Your task to perform on an android device: What's on my calendar today? Image 0: 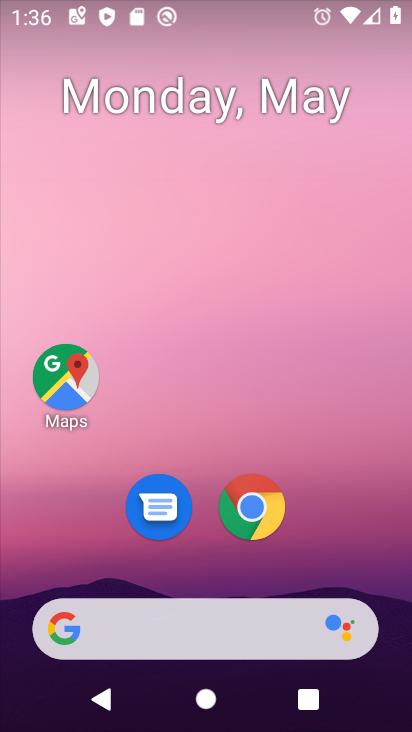
Step 0: drag from (237, 724) to (234, 26)
Your task to perform on an android device: What's on my calendar today? Image 1: 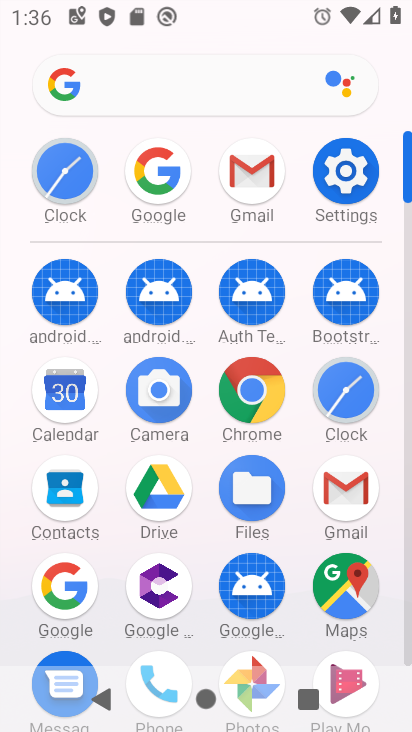
Step 1: click (68, 395)
Your task to perform on an android device: What's on my calendar today? Image 2: 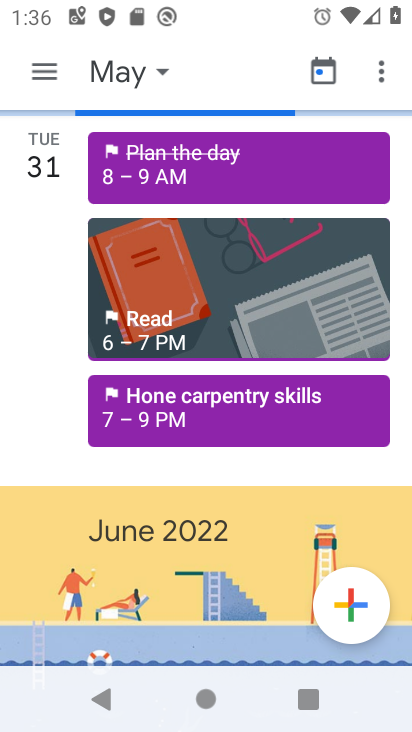
Step 2: click (136, 74)
Your task to perform on an android device: What's on my calendar today? Image 3: 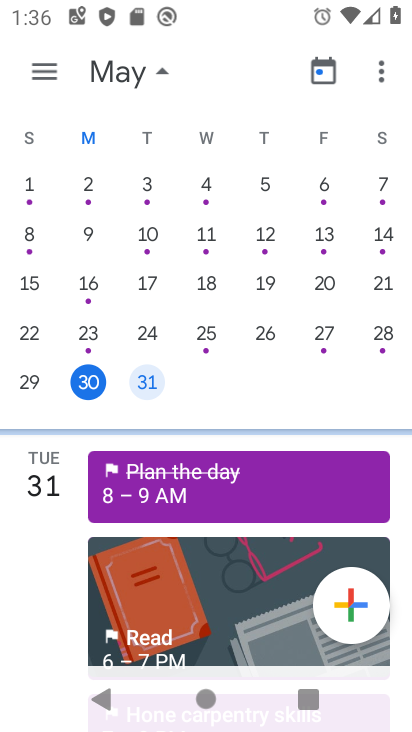
Step 3: click (91, 379)
Your task to perform on an android device: What's on my calendar today? Image 4: 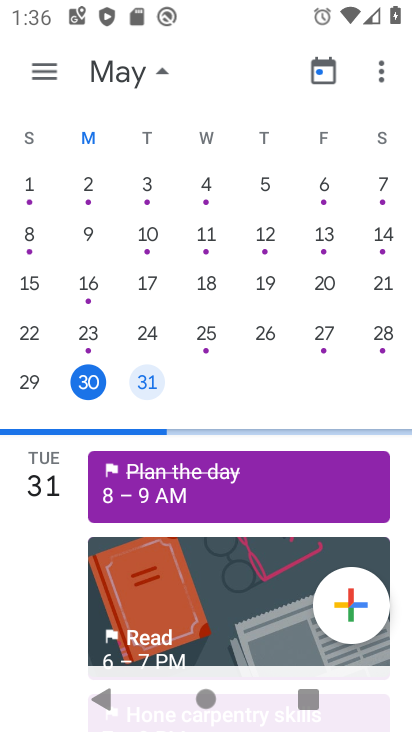
Step 4: click (84, 367)
Your task to perform on an android device: What's on my calendar today? Image 5: 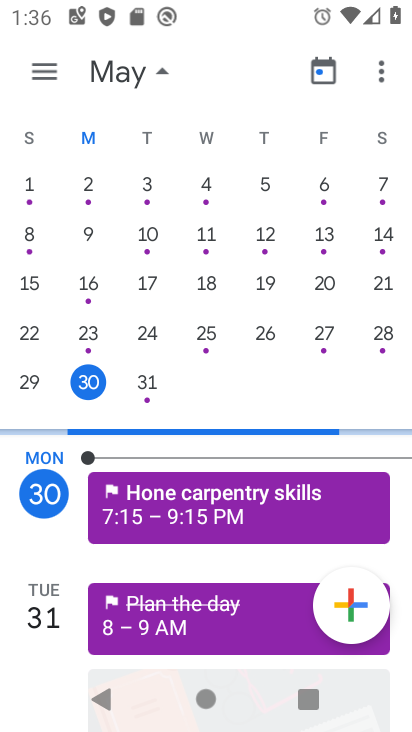
Step 5: click (96, 385)
Your task to perform on an android device: What's on my calendar today? Image 6: 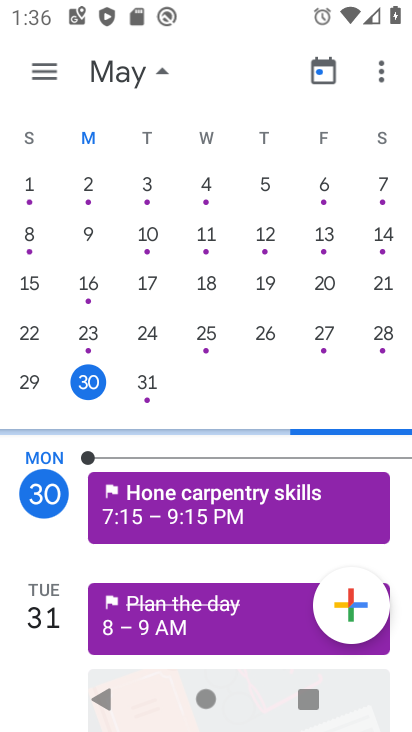
Step 6: click (96, 385)
Your task to perform on an android device: What's on my calendar today? Image 7: 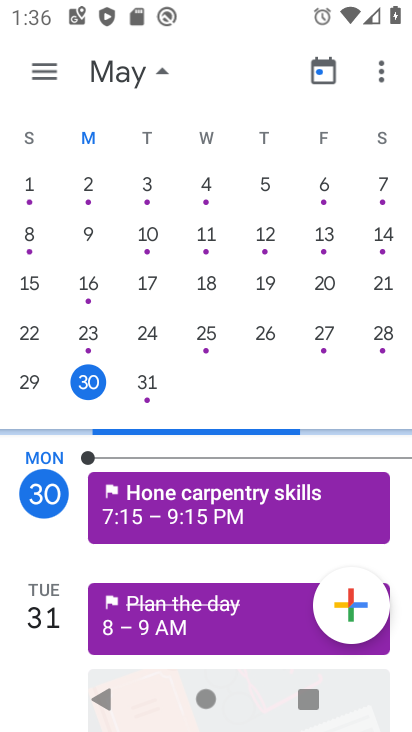
Step 7: click (158, 70)
Your task to perform on an android device: What's on my calendar today? Image 8: 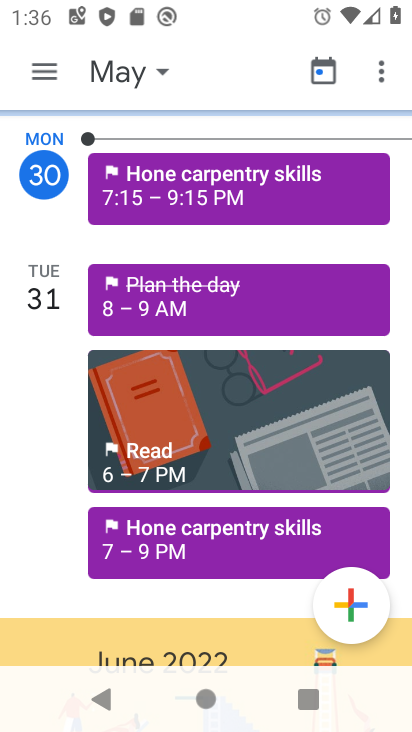
Step 8: task complete